Your task to perform on an android device: all mails in gmail Image 0: 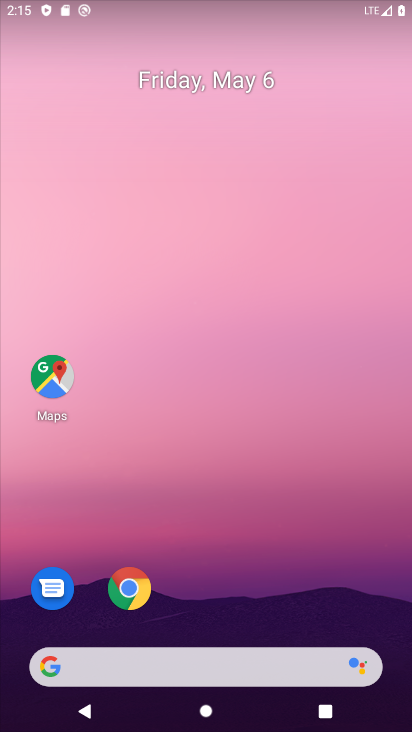
Step 0: drag from (309, 577) to (285, 211)
Your task to perform on an android device: all mails in gmail Image 1: 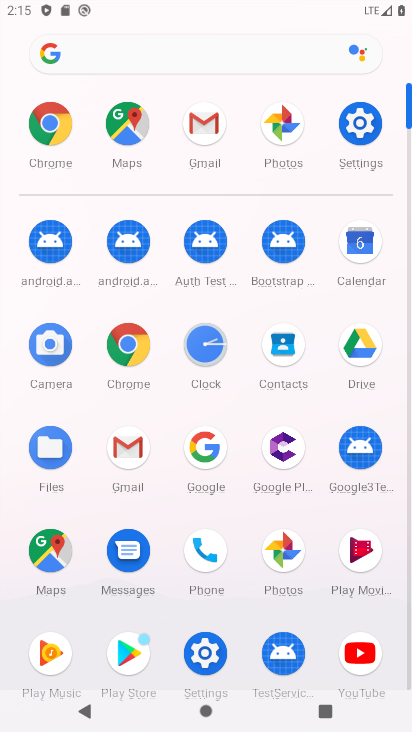
Step 1: click (122, 445)
Your task to perform on an android device: all mails in gmail Image 2: 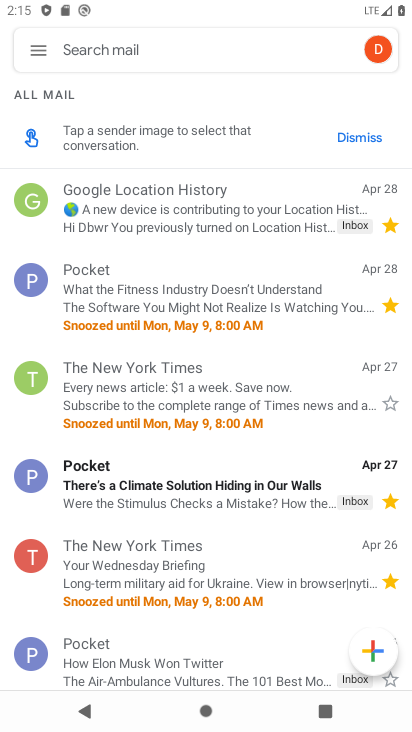
Step 2: task complete